Your task to perform on an android device: stop showing notifications on the lock screen Image 0: 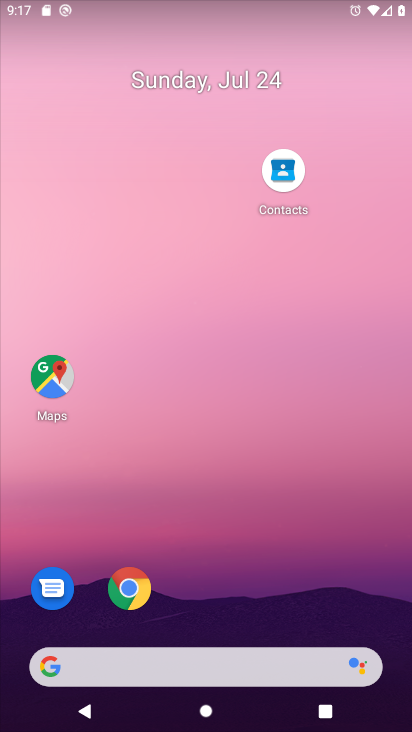
Step 0: drag from (200, 630) to (194, 36)
Your task to perform on an android device: stop showing notifications on the lock screen Image 1: 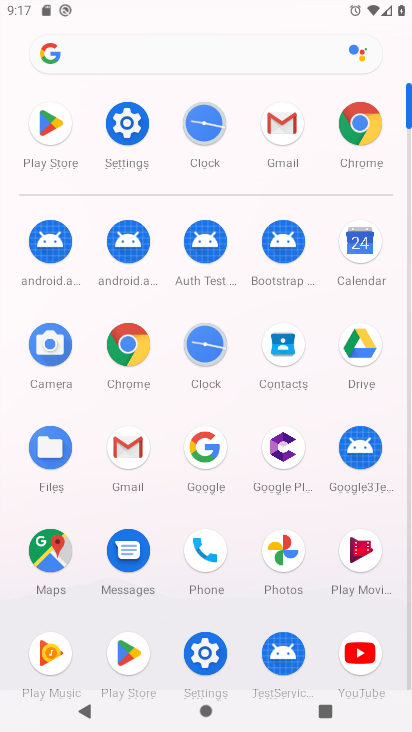
Step 1: click (123, 114)
Your task to perform on an android device: stop showing notifications on the lock screen Image 2: 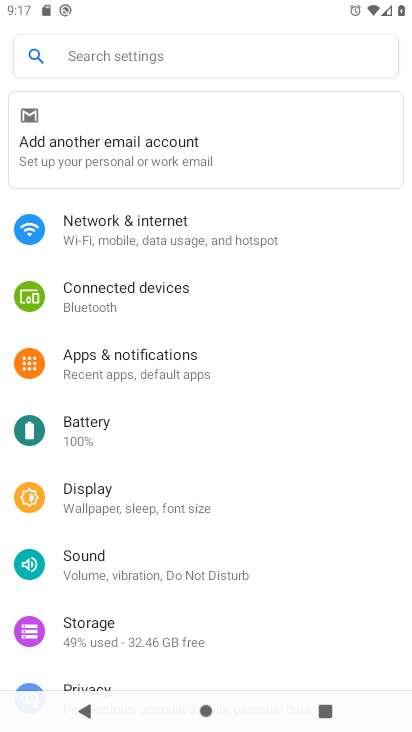
Step 2: click (207, 357)
Your task to perform on an android device: stop showing notifications on the lock screen Image 3: 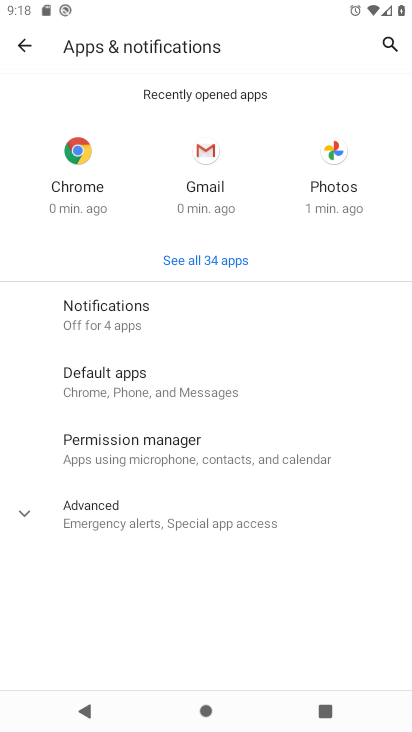
Step 3: click (89, 310)
Your task to perform on an android device: stop showing notifications on the lock screen Image 4: 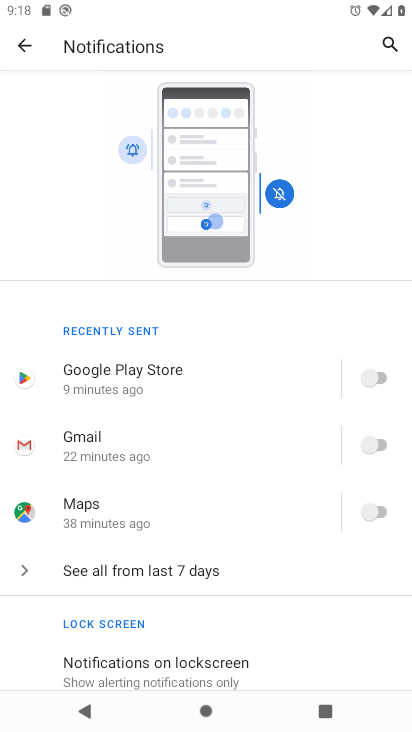
Step 4: click (240, 669)
Your task to perform on an android device: stop showing notifications on the lock screen Image 5: 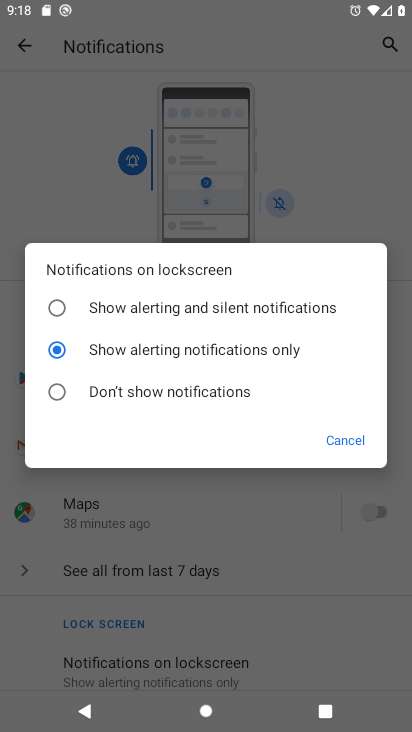
Step 5: click (56, 388)
Your task to perform on an android device: stop showing notifications on the lock screen Image 6: 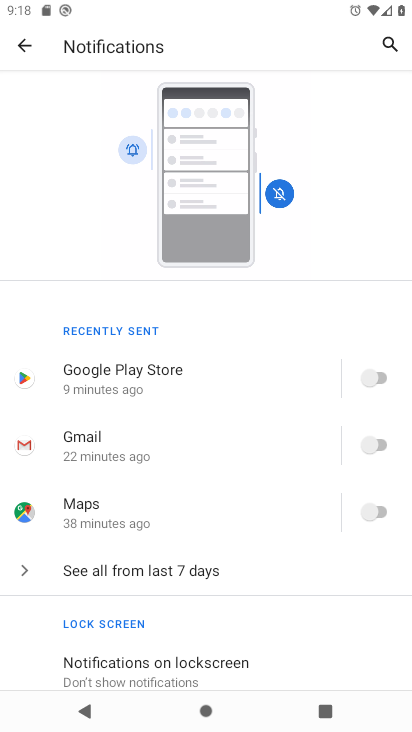
Step 6: task complete